Your task to perform on an android device: change the clock style Image 0: 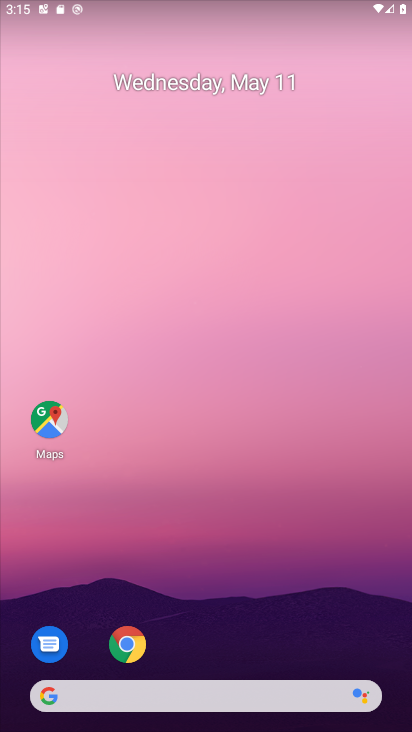
Step 0: drag from (226, 671) to (222, 95)
Your task to perform on an android device: change the clock style Image 1: 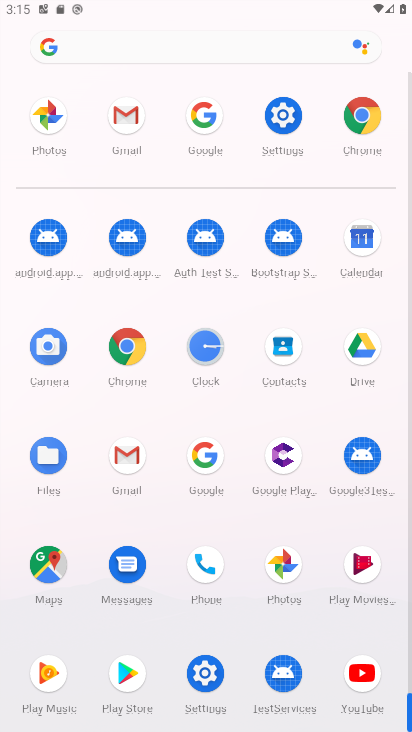
Step 1: click (276, 125)
Your task to perform on an android device: change the clock style Image 2: 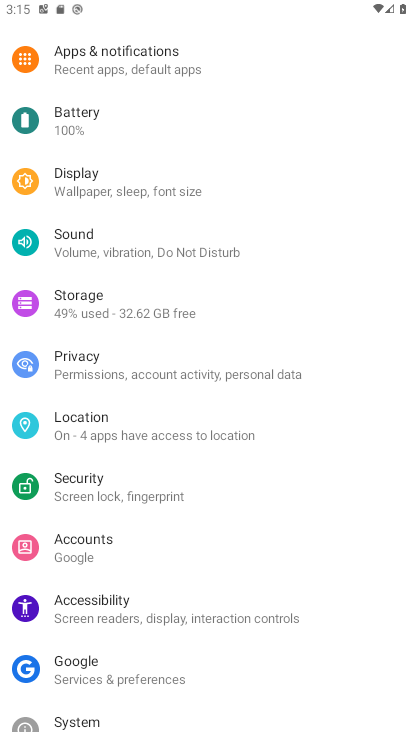
Step 2: press home button
Your task to perform on an android device: change the clock style Image 3: 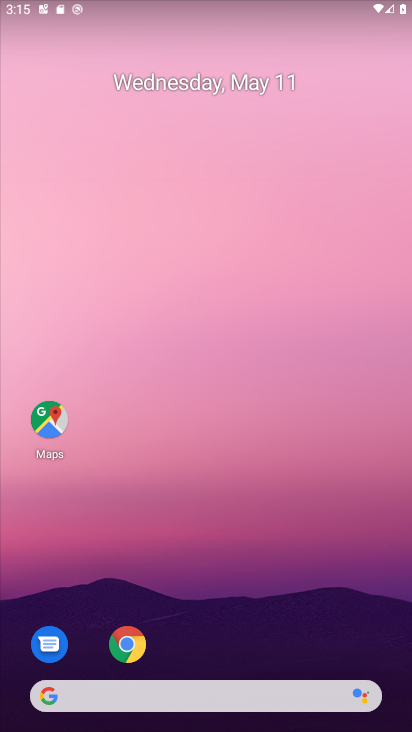
Step 3: drag from (232, 674) to (121, 16)
Your task to perform on an android device: change the clock style Image 4: 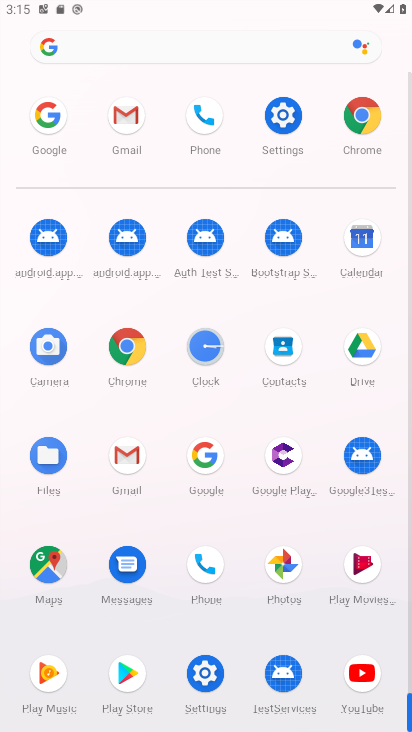
Step 4: click (204, 357)
Your task to perform on an android device: change the clock style Image 5: 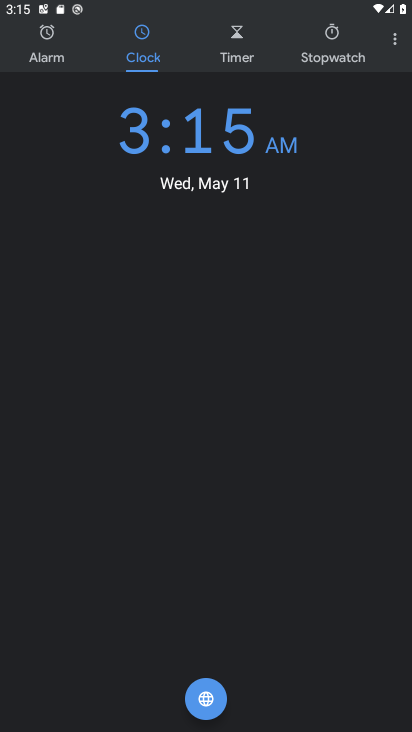
Step 5: click (397, 50)
Your task to perform on an android device: change the clock style Image 6: 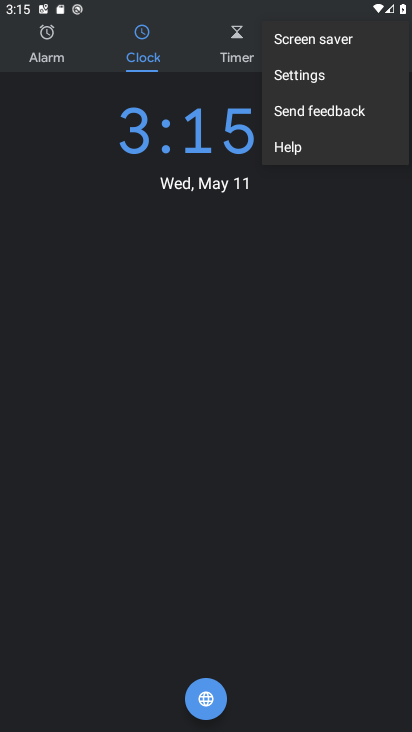
Step 6: click (300, 81)
Your task to perform on an android device: change the clock style Image 7: 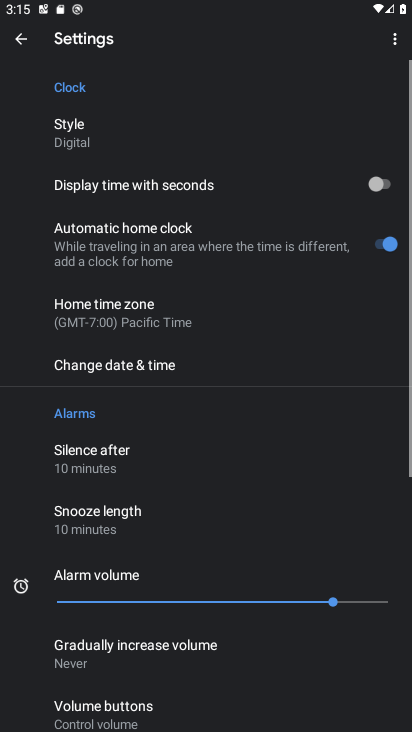
Step 7: click (104, 138)
Your task to perform on an android device: change the clock style Image 8: 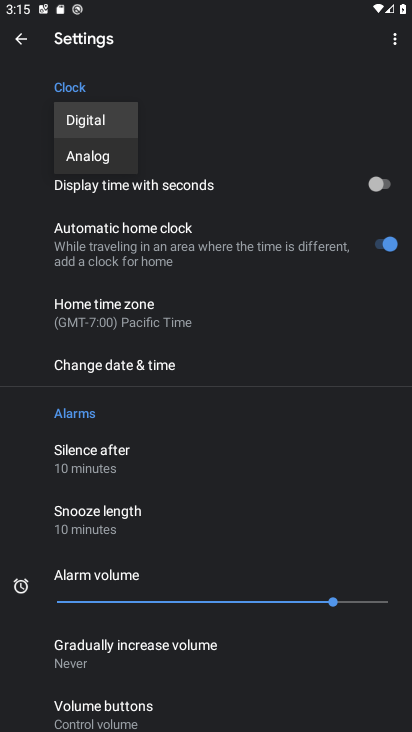
Step 8: click (106, 147)
Your task to perform on an android device: change the clock style Image 9: 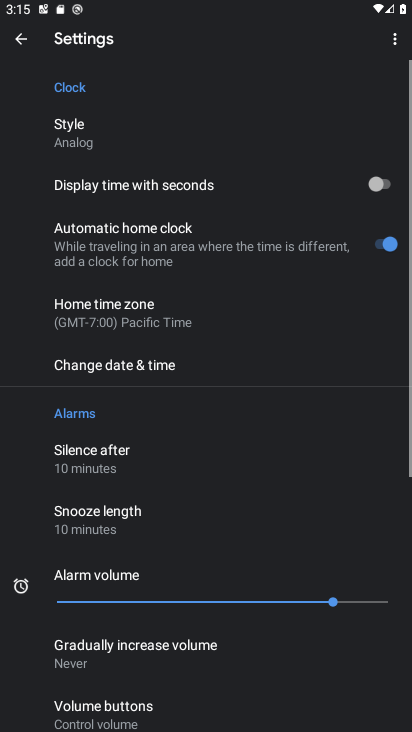
Step 9: task complete